Your task to perform on an android device: Open internet settings Image 0: 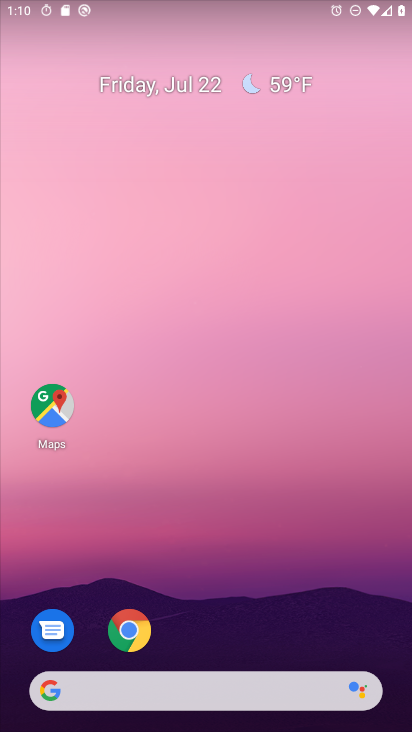
Step 0: press home button
Your task to perform on an android device: Open internet settings Image 1: 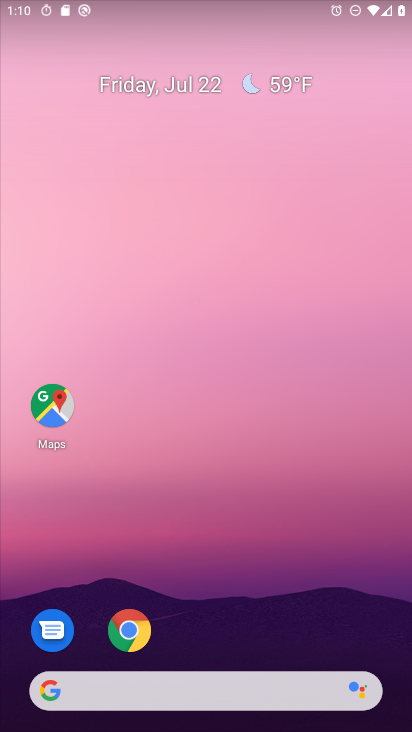
Step 1: drag from (196, 545) to (166, 5)
Your task to perform on an android device: Open internet settings Image 2: 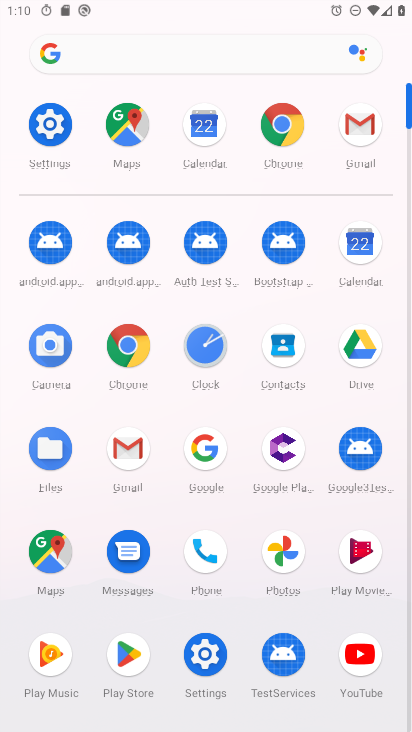
Step 2: click (44, 134)
Your task to perform on an android device: Open internet settings Image 3: 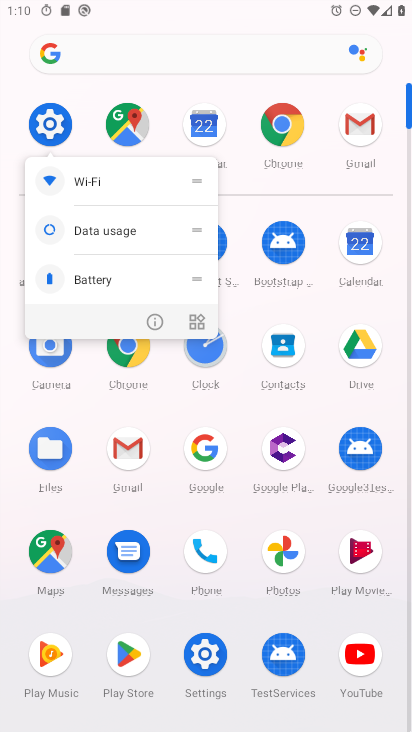
Step 3: click (52, 118)
Your task to perform on an android device: Open internet settings Image 4: 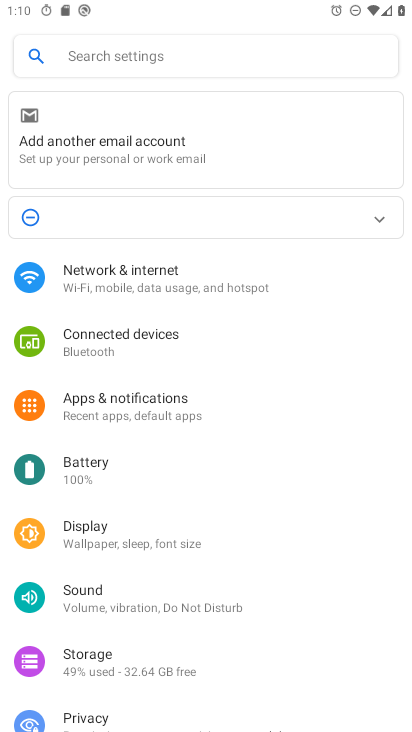
Step 4: click (114, 286)
Your task to perform on an android device: Open internet settings Image 5: 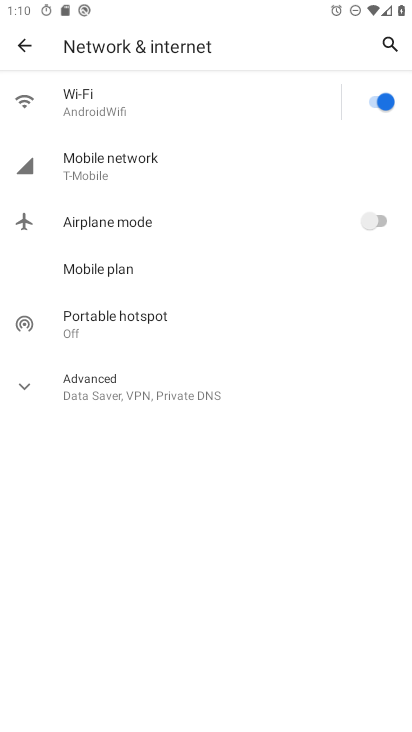
Step 5: task complete